Your task to perform on an android device: see creations saved in the google photos Image 0: 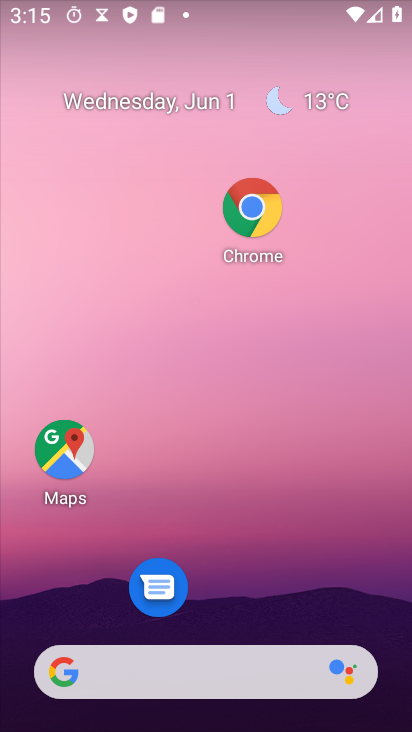
Step 0: drag from (289, 644) to (207, 240)
Your task to perform on an android device: see creations saved in the google photos Image 1: 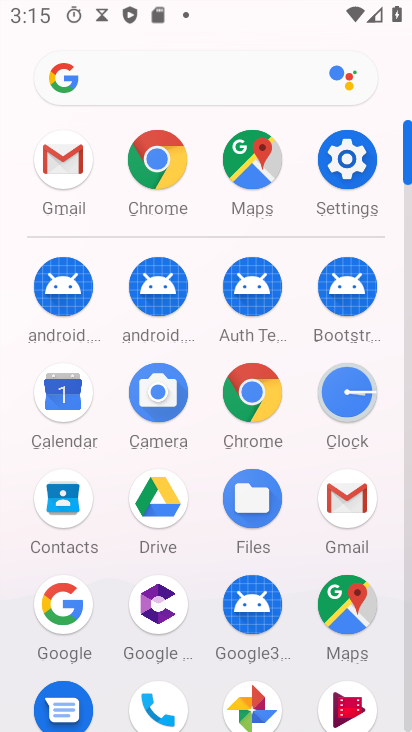
Step 1: click (255, 710)
Your task to perform on an android device: see creations saved in the google photos Image 2: 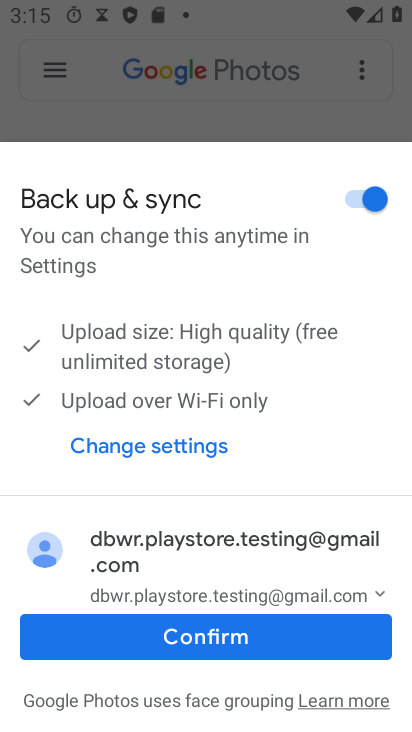
Step 2: click (214, 642)
Your task to perform on an android device: see creations saved in the google photos Image 3: 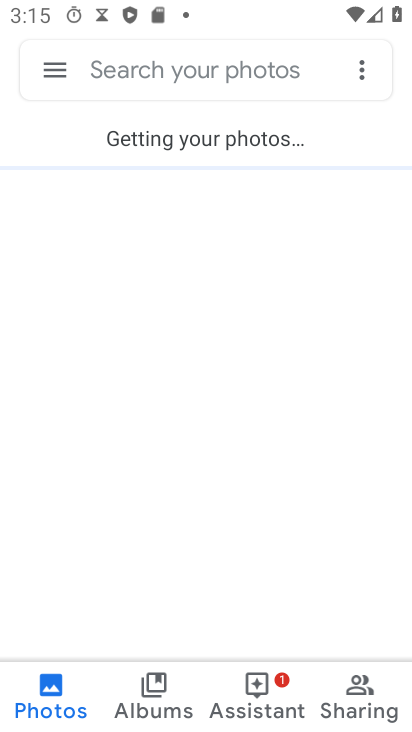
Step 3: click (46, 695)
Your task to perform on an android device: see creations saved in the google photos Image 4: 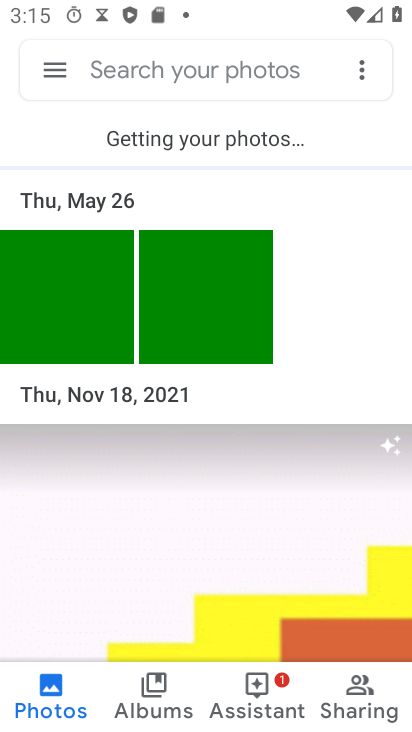
Step 4: task complete